Your task to perform on an android device: Open the map Image 0: 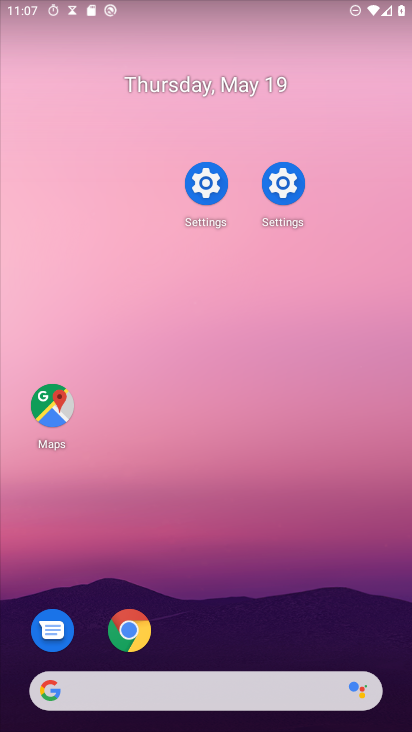
Step 0: drag from (316, 669) to (128, 46)
Your task to perform on an android device: Open the map Image 1: 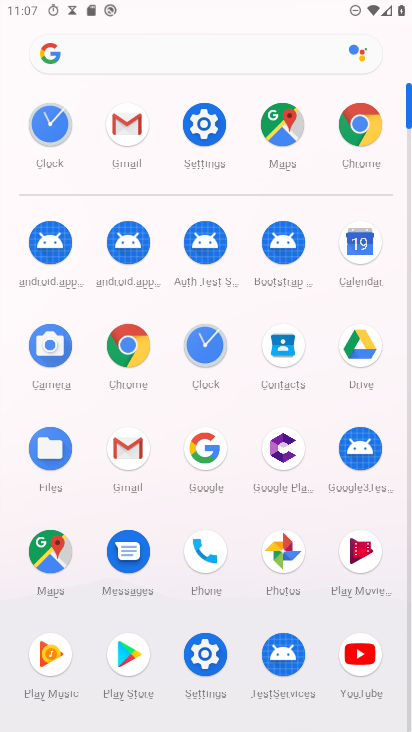
Step 1: drag from (295, 566) to (203, 30)
Your task to perform on an android device: Open the map Image 2: 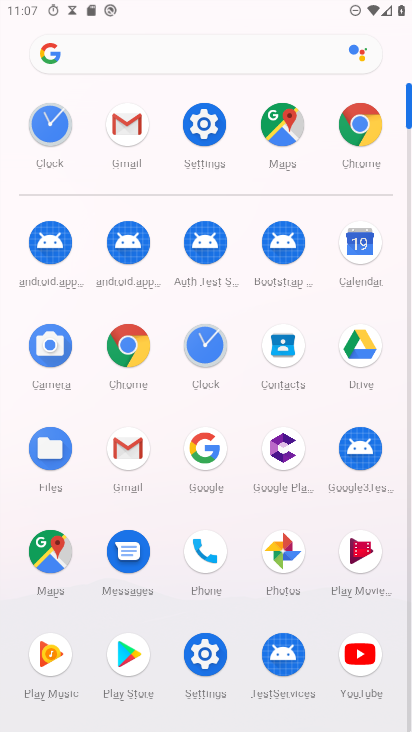
Step 2: click (292, 132)
Your task to perform on an android device: Open the map Image 3: 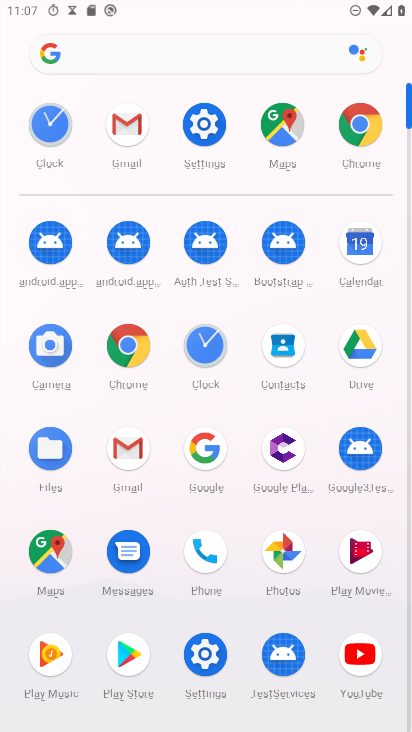
Step 3: click (293, 130)
Your task to perform on an android device: Open the map Image 4: 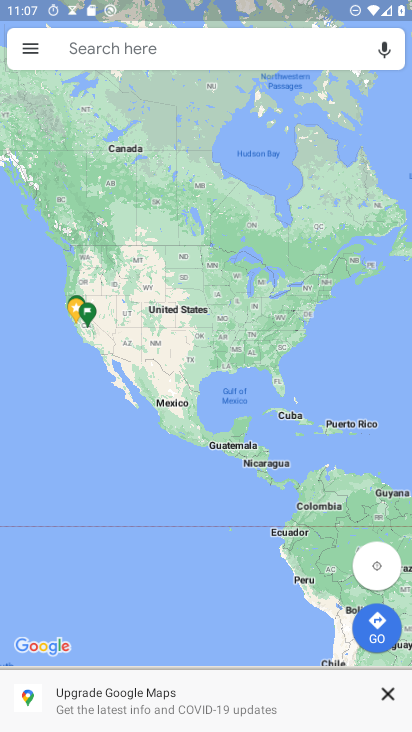
Step 4: task complete